Your task to perform on an android device: Open location settings Image 0: 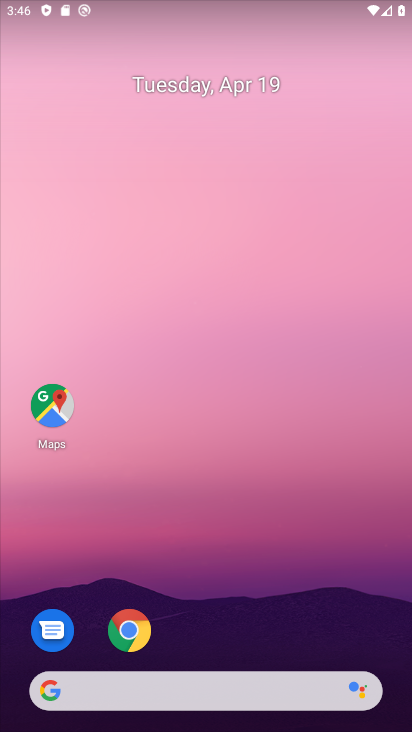
Step 0: drag from (300, 600) to (300, 106)
Your task to perform on an android device: Open location settings Image 1: 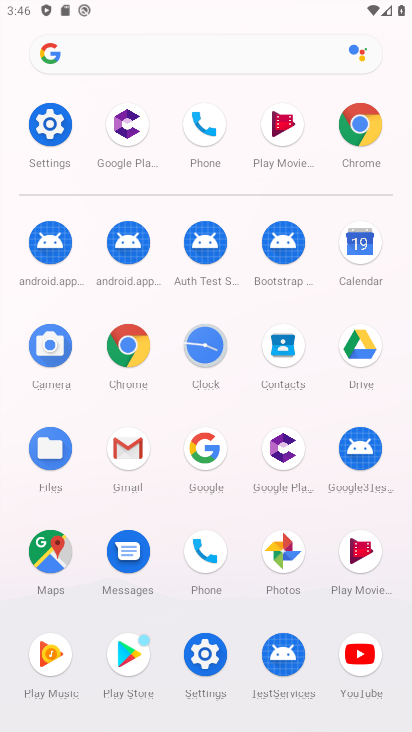
Step 1: click (39, 120)
Your task to perform on an android device: Open location settings Image 2: 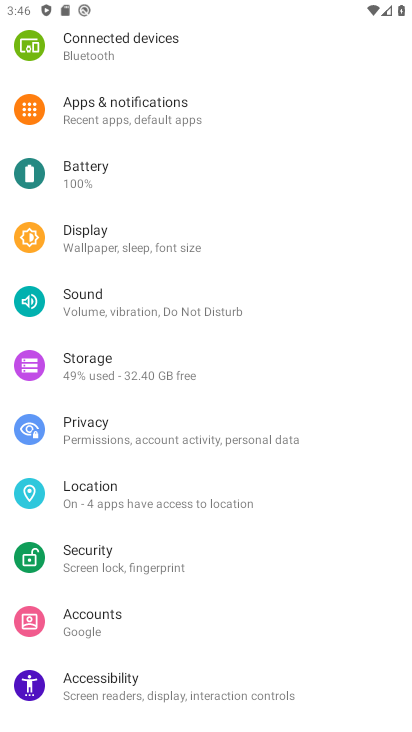
Step 2: drag from (166, 222) to (235, 595)
Your task to perform on an android device: Open location settings Image 3: 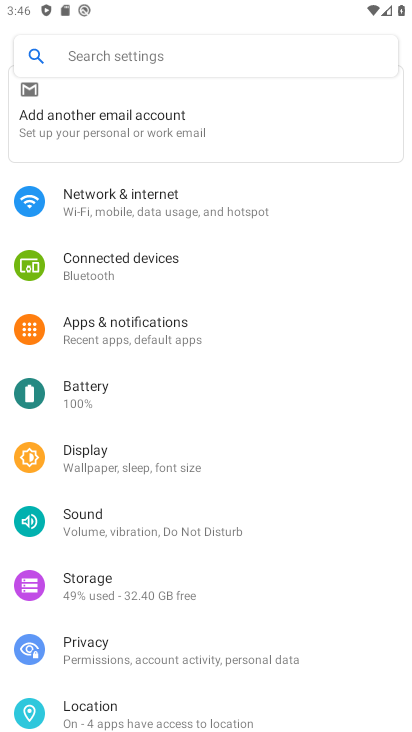
Step 3: drag from (276, 638) to (277, 185)
Your task to perform on an android device: Open location settings Image 4: 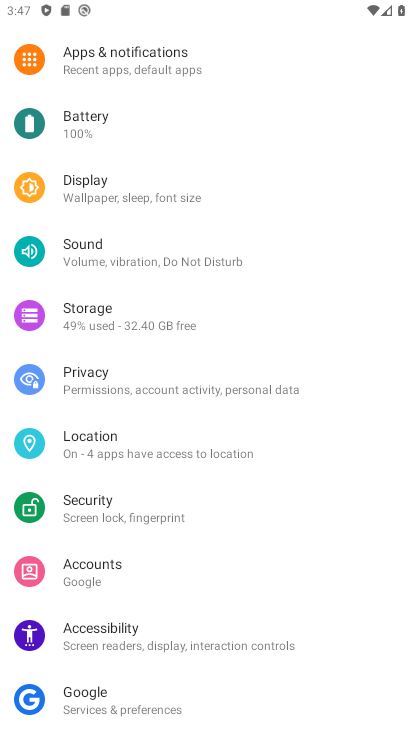
Step 4: drag from (201, 558) to (223, 138)
Your task to perform on an android device: Open location settings Image 5: 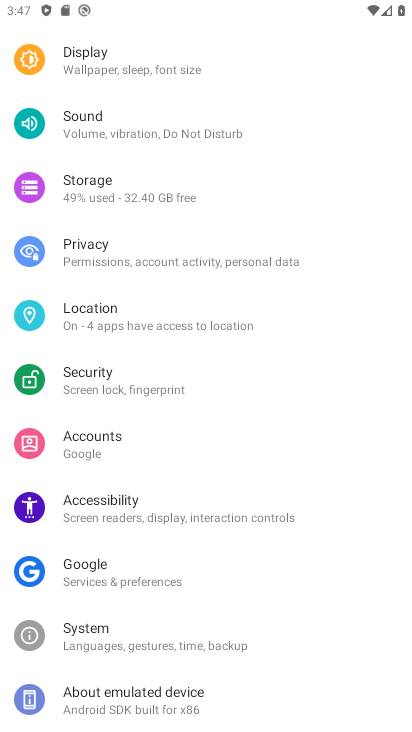
Step 5: click (91, 316)
Your task to perform on an android device: Open location settings Image 6: 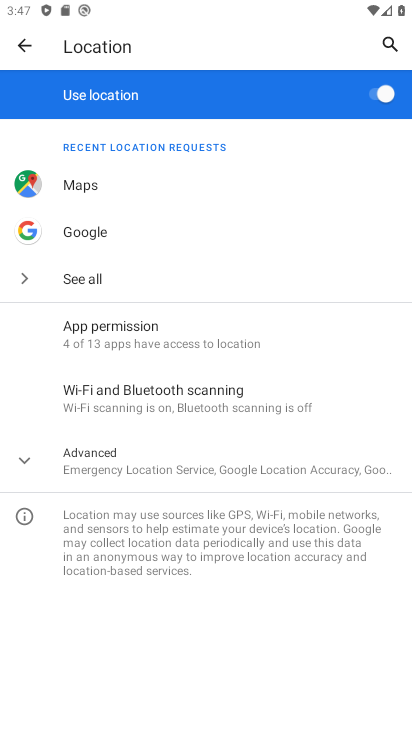
Step 6: click (327, 633)
Your task to perform on an android device: Open location settings Image 7: 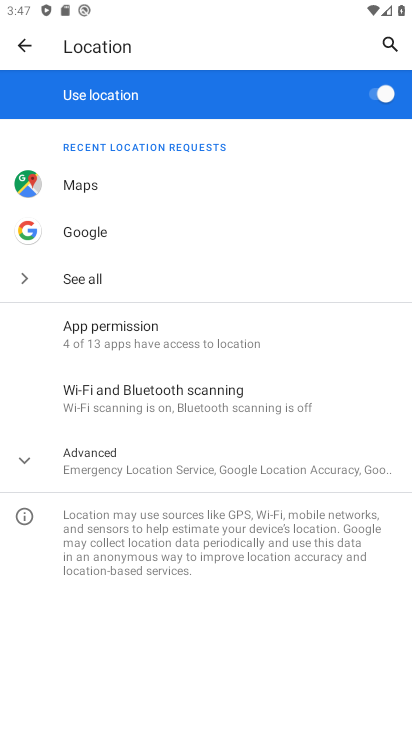
Step 7: task complete